Your task to perform on an android device: turn on the 12-hour format for clock Image 0: 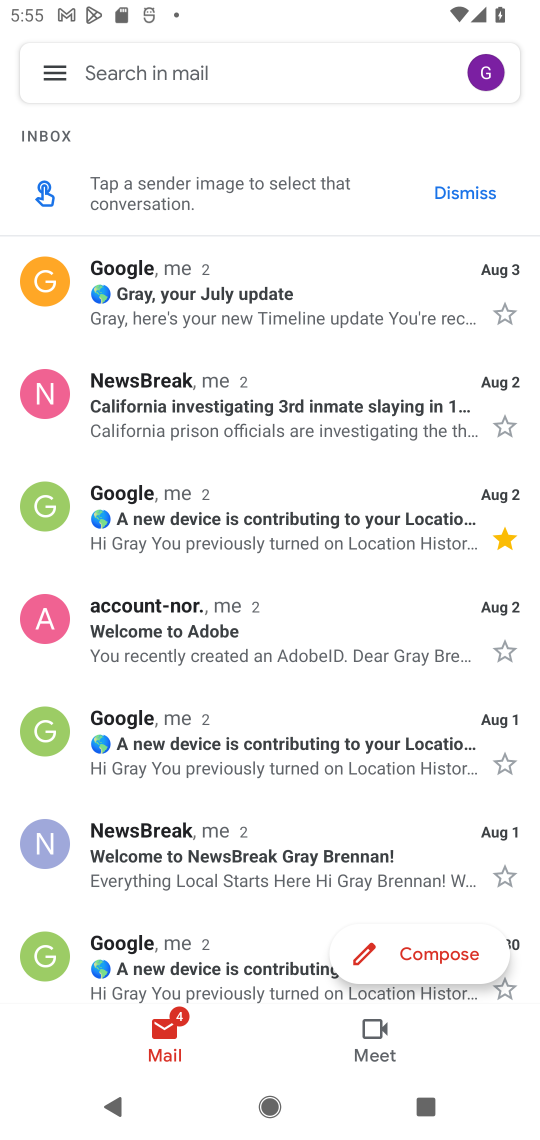
Step 0: press home button
Your task to perform on an android device: turn on the 12-hour format for clock Image 1: 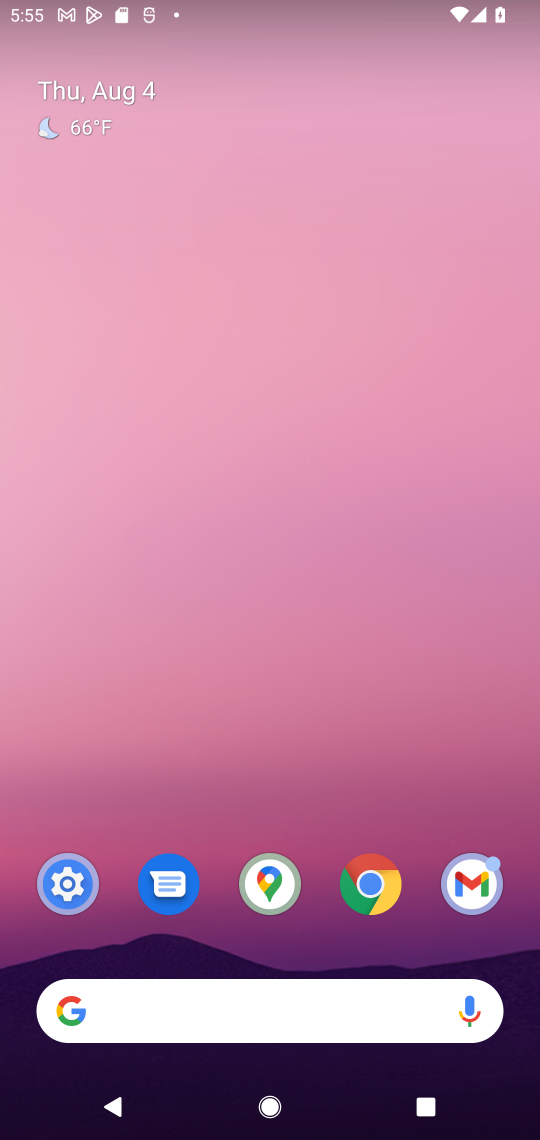
Step 1: click (78, 886)
Your task to perform on an android device: turn on the 12-hour format for clock Image 2: 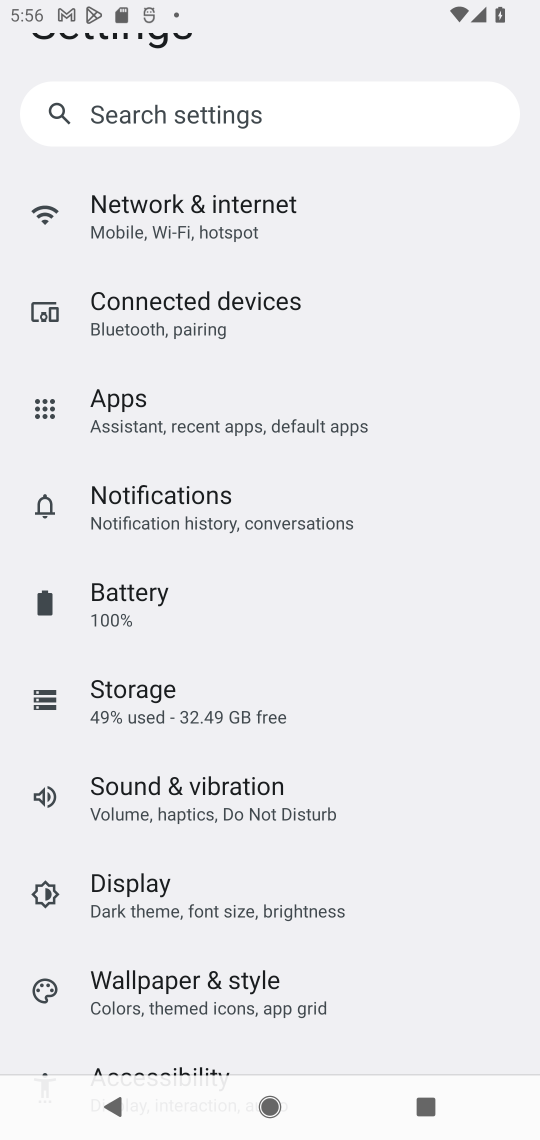
Step 2: task complete